Your task to perform on an android device: Go to accessibility settings Image 0: 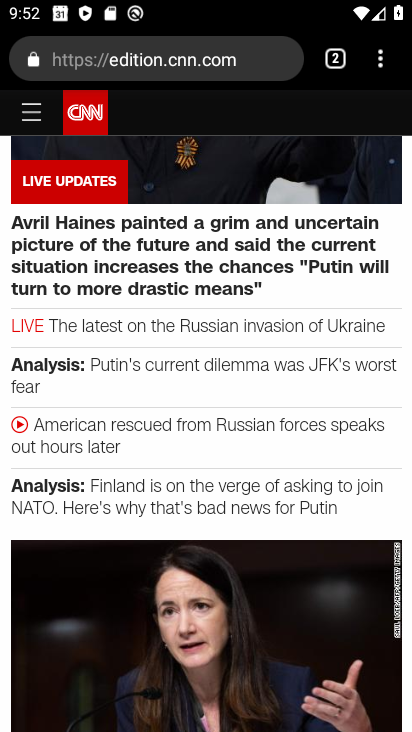
Step 0: task complete